Your task to perform on an android device: Open the stopwatch Image 0: 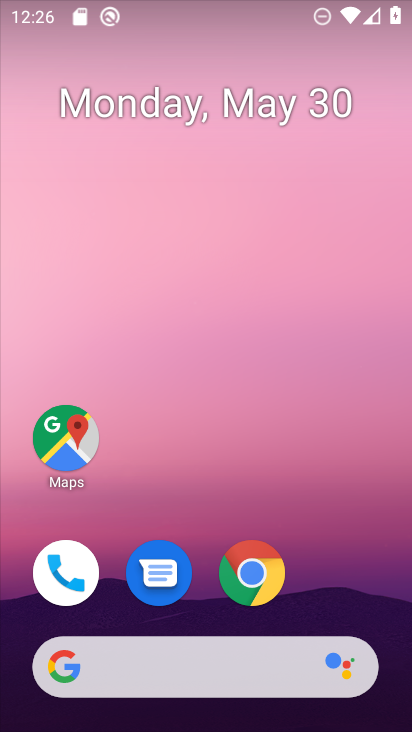
Step 0: press home button
Your task to perform on an android device: Open the stopwatch Image 1: 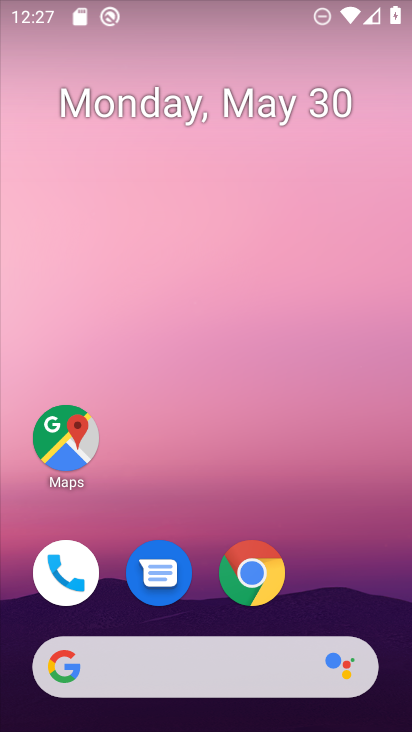
Step 1: drag from (332, 616) to (319, 157)
Your task to perform on an android device: Open the stopwatch Image 2: 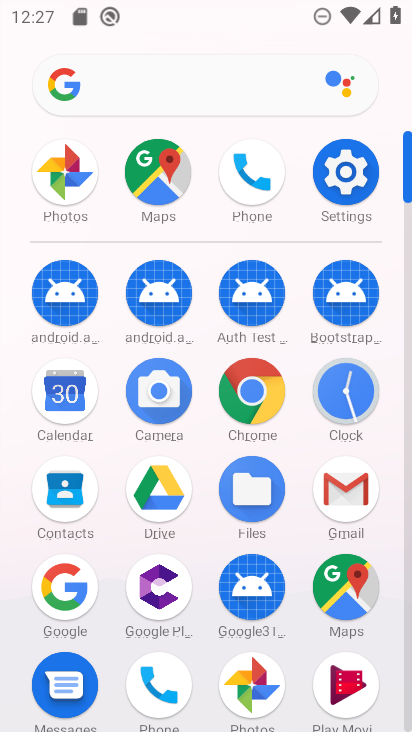
Step 2: click (338, 405)
Your task to perform on an android device: Open the stopwatch Image 3: 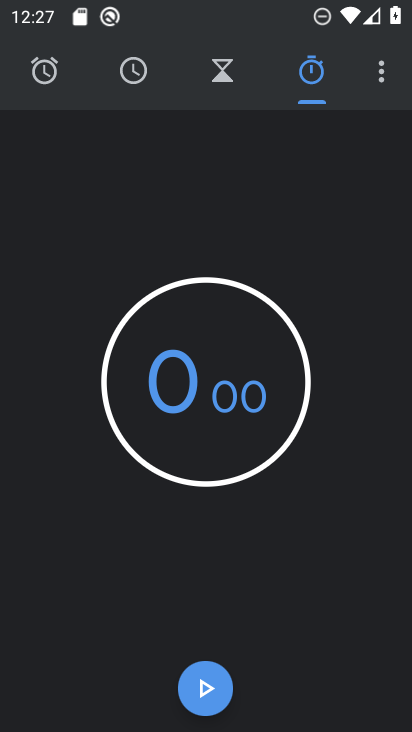
Step 3: click (314, 74)
Your task to perform on an android device: Open the stopwatch Image 4: 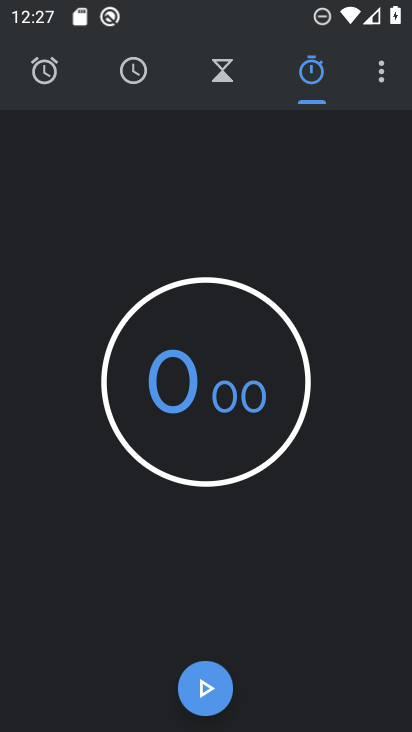
Step 4: task complete